Your task to perform on an android device: Open Google Chrome Image 0: 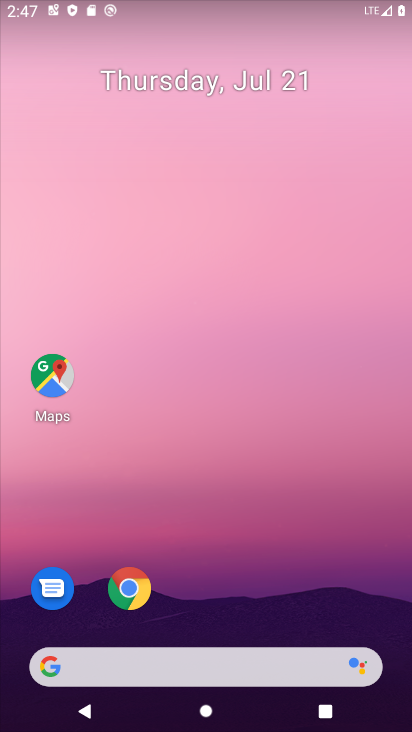
Step 0: drag from (178, 584) to (175, 205)
Your task to perform on an android device: Open Google Chrome Image 1: 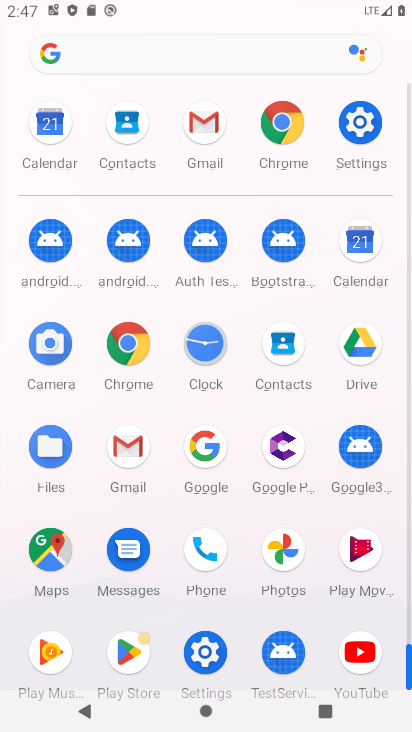
Step 1: click (134, 587)
Your task to perform on an android device: Open Google Chrome Image 2: 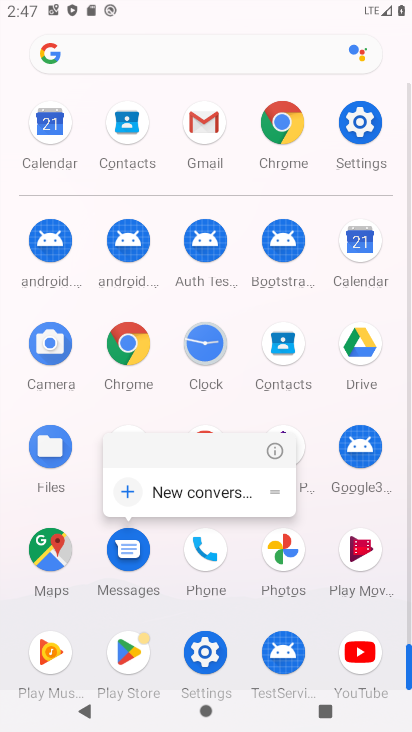
Step 2: click (128, 585)
Your task to perform on an android device: Open Google Chrome Image 3: 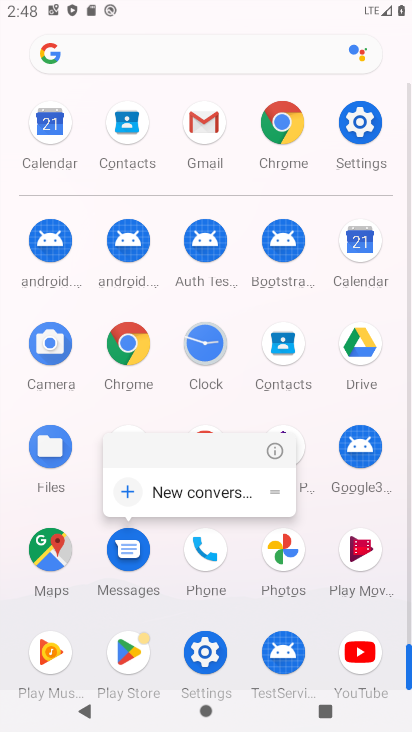
Step 3: click (274, 123)
Your task to perform on an android device: Open Google Chrome Image 4: 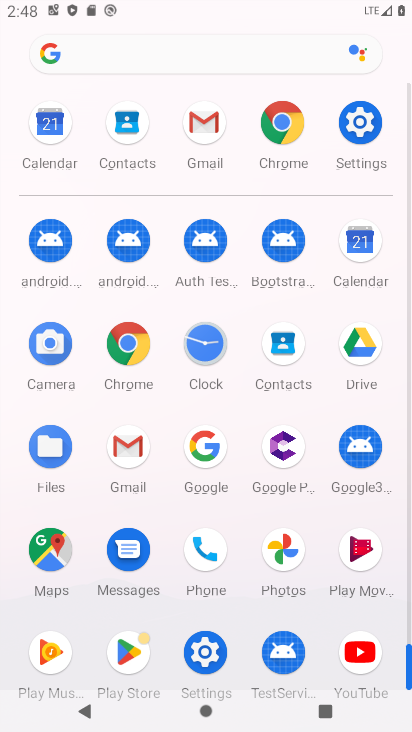
Step 4: click (283, 123)
Your task to perform on an android device: Open Google Chrome Image 5: 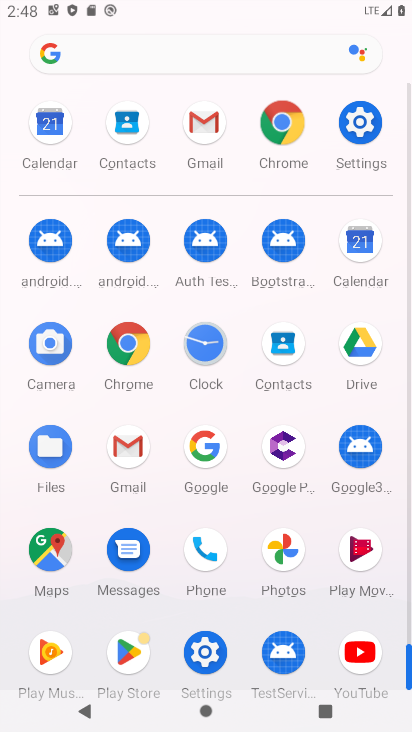
Step 5: click (283, 123)
Your task to perform on an android device: Open Google Chrome Image 6: 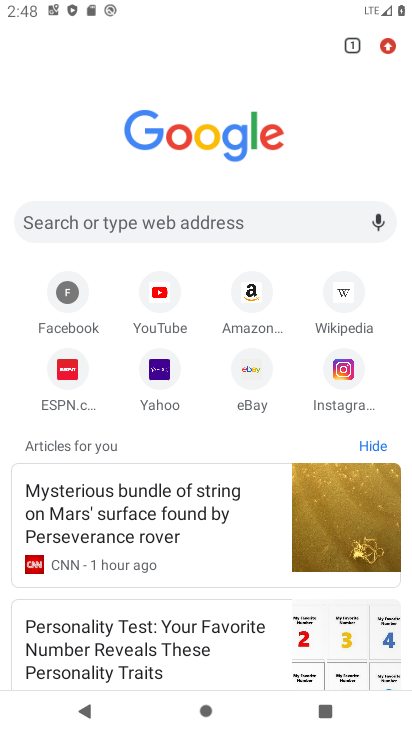
Step 6: task complete